Your task to perform on an android device: turn off translation in the chrome app Image 0: 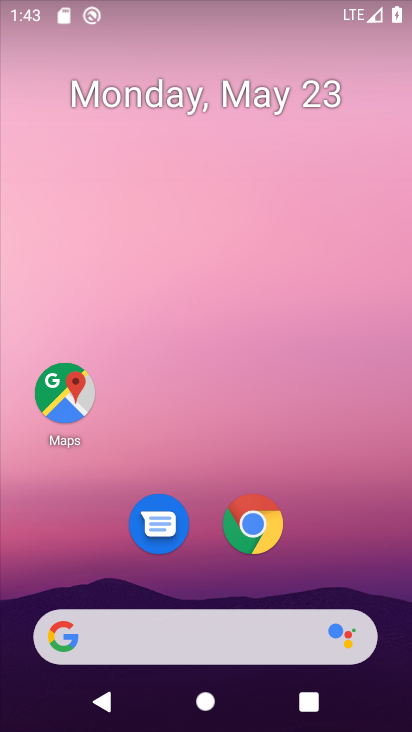
Step 0: click (260, 526)
Your task to perform on an android device: turn off translation in the chrome app Image 1: 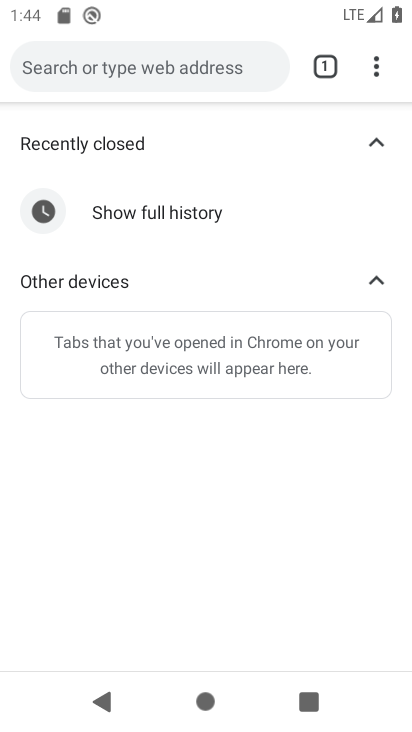
Step 1: click (377, 63)
Your task to perform on an android device: turn off translation in the chrome app Image 2: 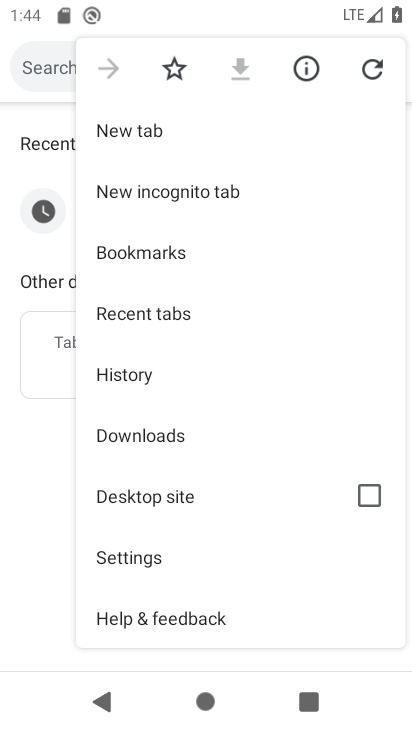
Step 2: click (166, 559)
Your task to perform on an android device: turn off translation in the chrome app Image 3: 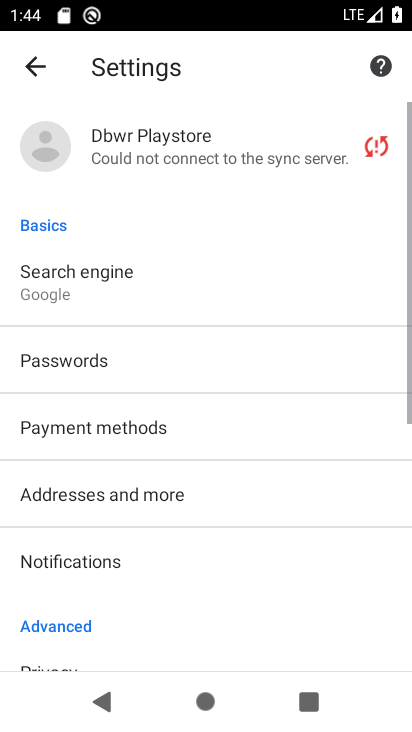
Step 3: drag from (241, 531) to (336, 143)
Your task to perform on an android device: turn off translation in the chrome app Image 4: 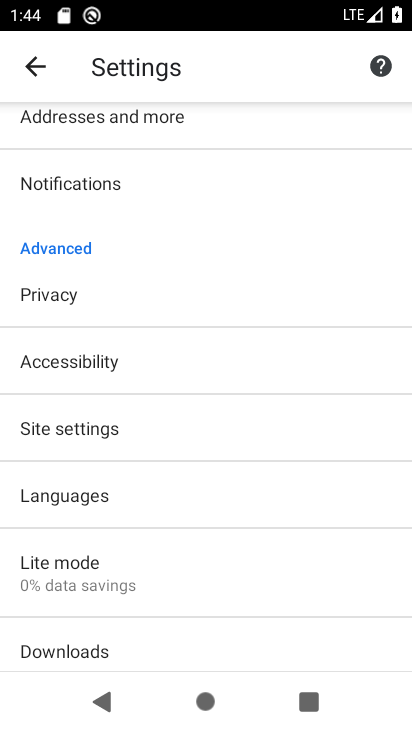
Step 4: click (200, 501)
Your task to perform on an android device: turn off translation in the chrome app Image 5: 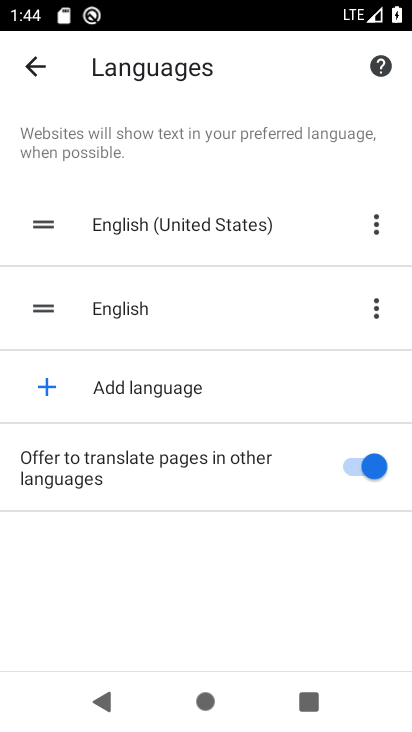
Step 5: click (360, 451)
Your task to perform on an android device: turn off translation in the chrome app Image 6: 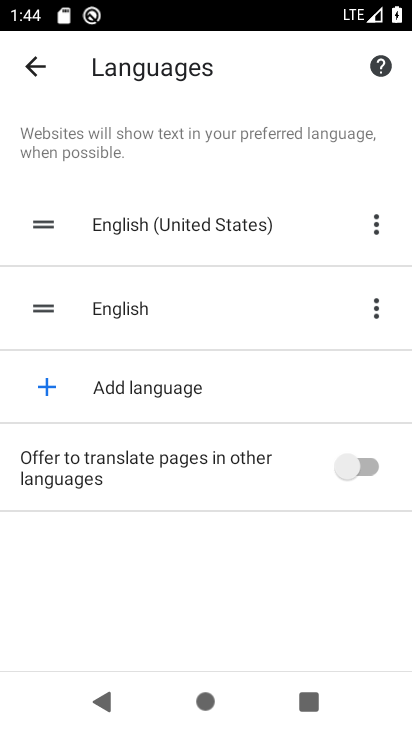
Step 6: task complete